Your task to perform on an android device: turn on sleep mode Image 0: 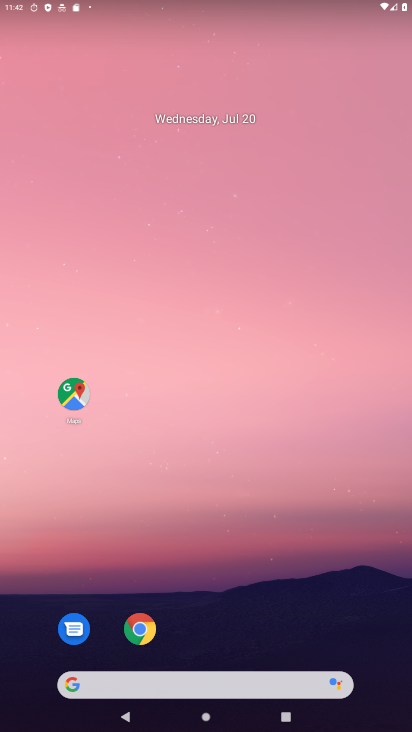
Step 0: drag from (151, 681) to (111, 1)
Your task to perform on an android device: turn on sleep mode Image 1: 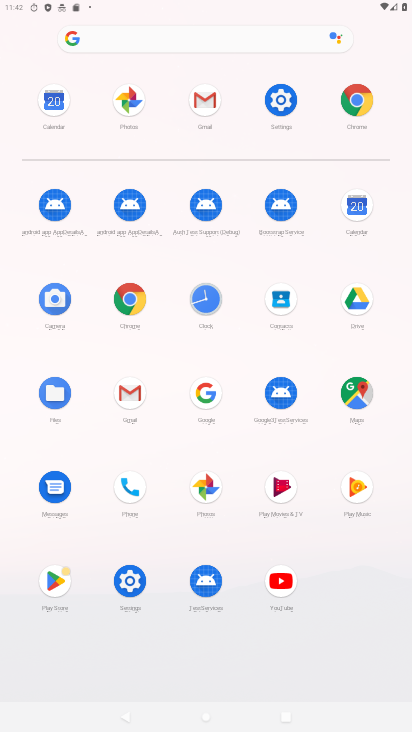
Step 1: click (284, 103)
Your task to perform on an android device: turn on sleep mode Image 2: 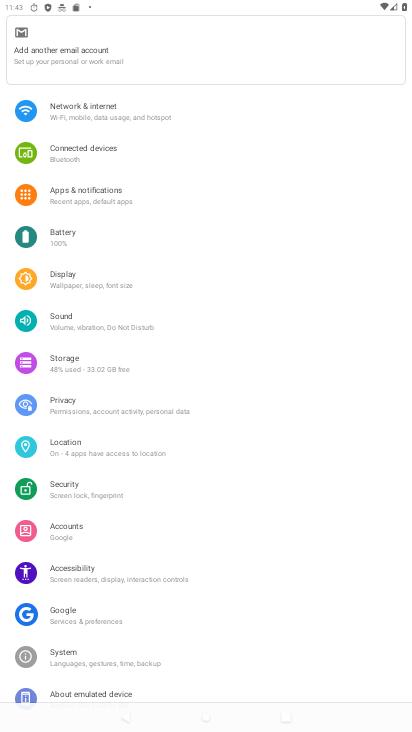
Step 2: click (97, 323)
Your task to perform on an android device: turn on sleep mode Image 3: 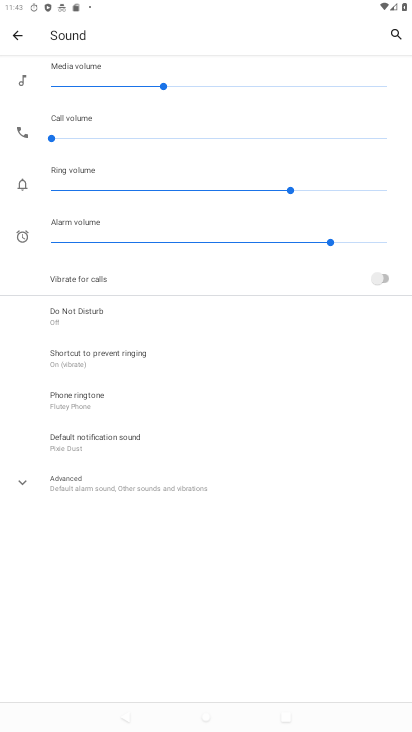
Step 3: task complete